Your task to perform on an android device: turn off javascript in the chrome app Image 0: 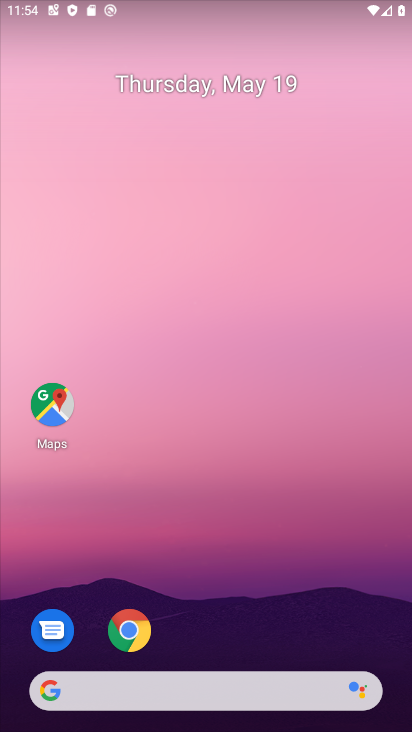
Step 0: click (129, 631)
Your task to perform on an android device: turn off javascript in the chrome app Image 1: 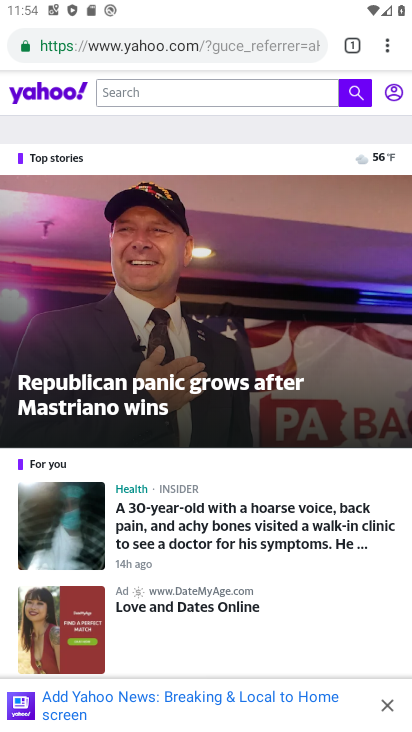
Step 1: click (387, 43)
Your task to perform on an android device: turn off javascript in the chrome app Image 2: 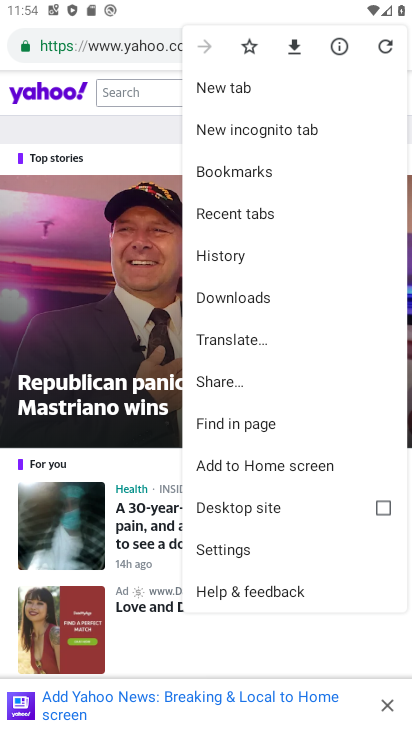
Step 2: click (240, 546)
Your task to perform on an android device: turn off javascript in the chrome app Image 3: 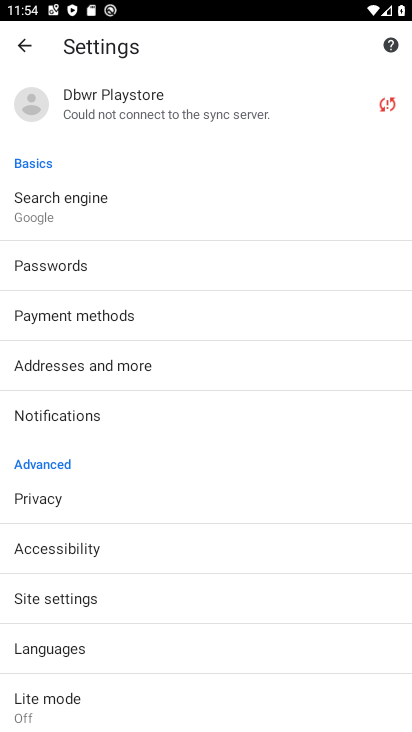
Step 3: click (75, 597)
Your task to perform on an android device: turn off javascript in the chrome app Image 4: 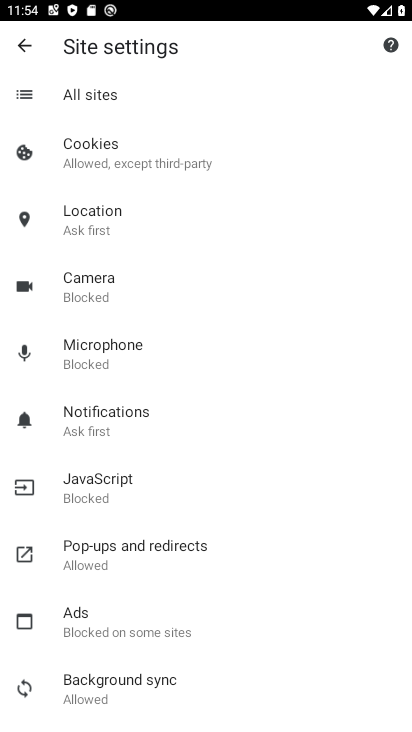
Step 4: click (97, 475)
Your task to perform on an android device: turn off javascript in the chrome app Image 5: 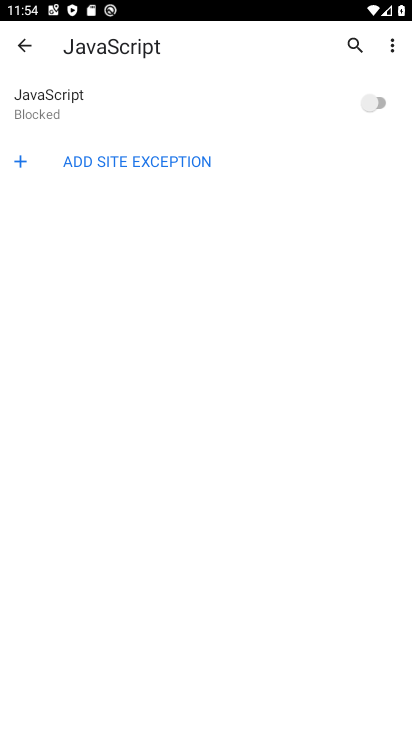
Step 5: task complete